Your task to perform on an android device: Show me popular games on the Play Store Image 0: 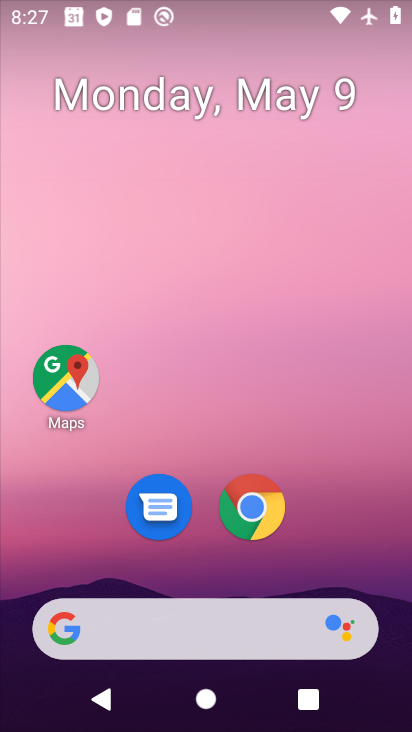
Step 0: drag from (229, 579) to (256, 31)
Your task to perform on an android device: Show me popular games on the Play Store Image 1: 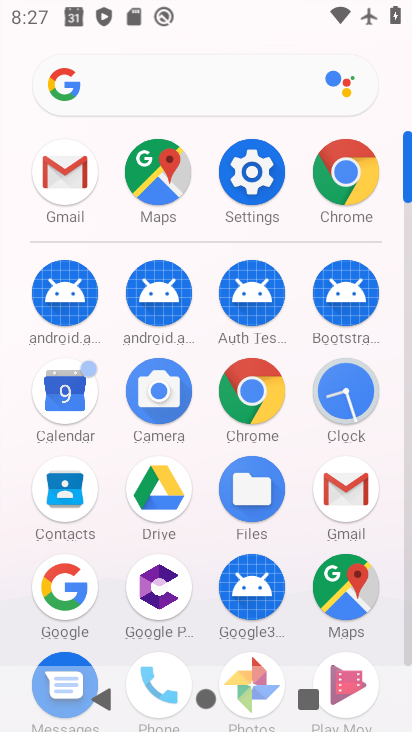
Step 1: drag from (205, 651) to (205, 123)
Your task to perform on an android device: Show me popular games on the Play Store Image 2: 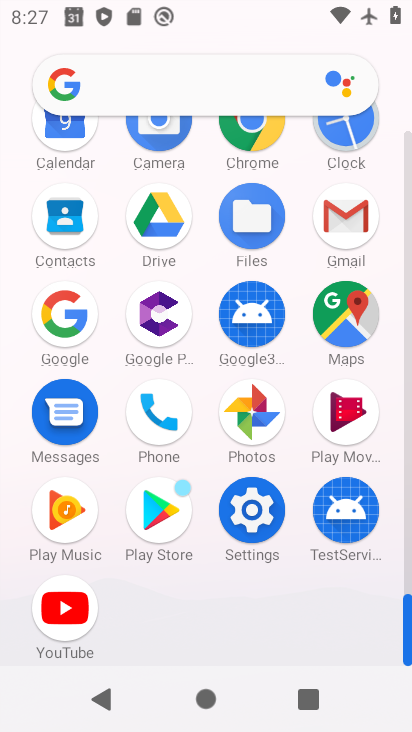
Step 2: click (165, 533)
Your task to perform on an android device: Show me popular games on the Play Store Image 3: 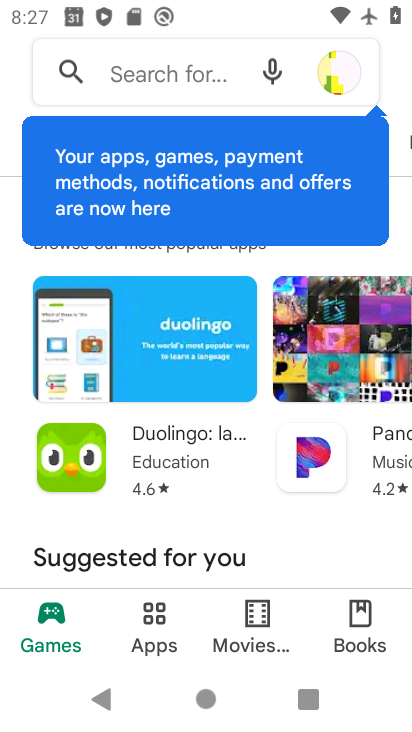
Step 3: drag from (197, 540) to (212, 78)
Your task to perform on an android device: Show me popular games on the Play Store Image 4: 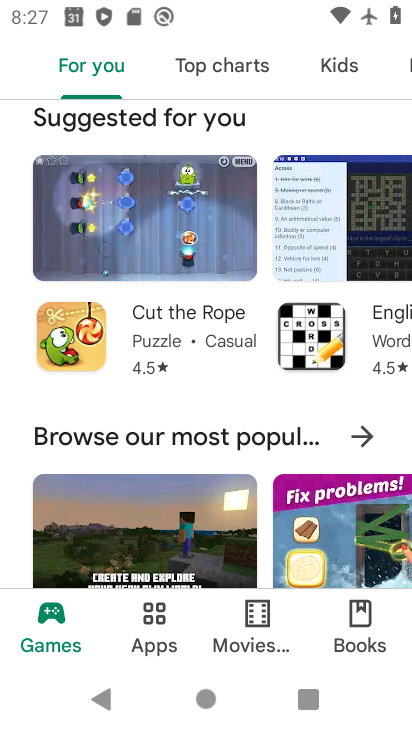
Step 4: drag from (225, 505) to (197, 131)
Your task to perform on an android device: Show me popular games on the Play Store Image 5: 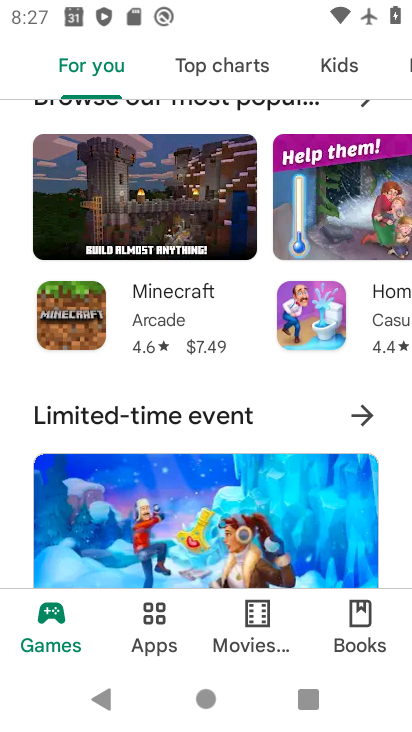
Step 5: drag from (213, 194) to (213, 488)
Your task to perform on an android device: Show me popular games on the Play Store Image 6: 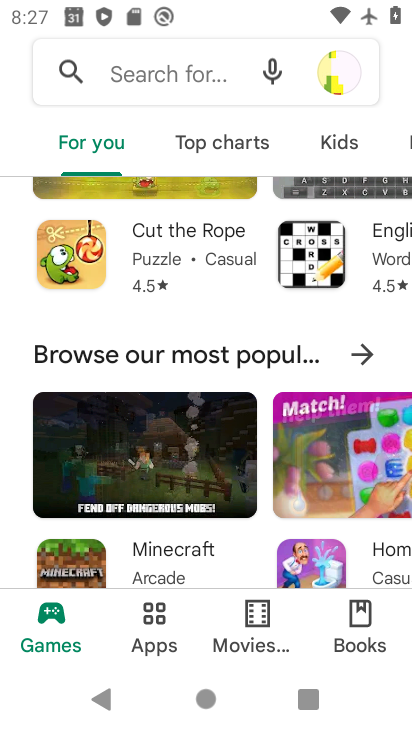
Step 6: click (234, 353)
Your task to perform on an android device: Show me popular games on the Play Store Image 7: 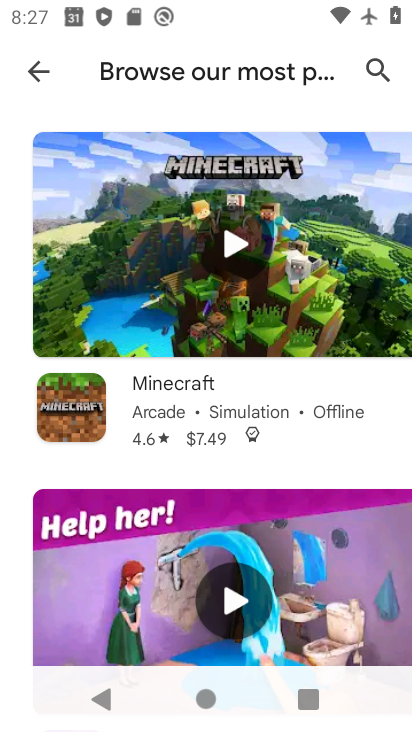
Step 7: task complete